Your task to perform on an android device: Open Google Chrome and open the bookmarks view Image 0: 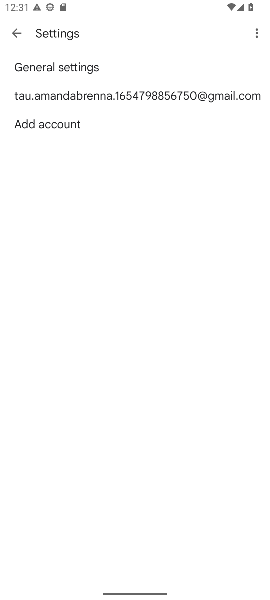
Step 0: press home button
Your task to perform on an android device: Open Google Chrome and open the bookmarks view Image 1: 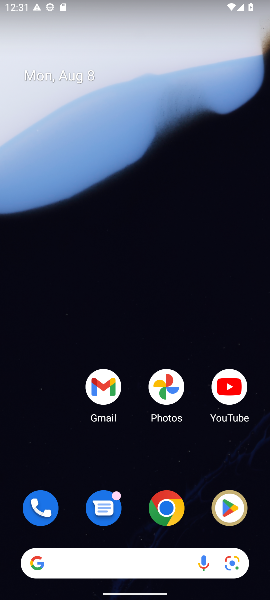
Step 1: click (164, 510)
Your task to perform on an android device: Open Google Chrome and open the bookmarks view Image 2: 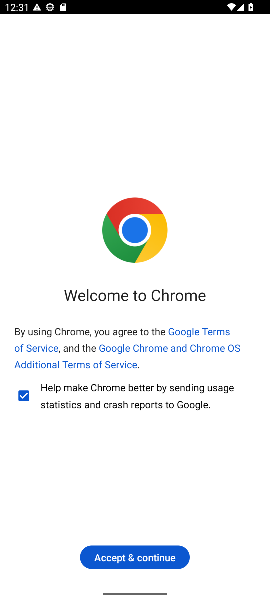
Step 2: click (119, 565)
Your task to perform on an android device: Open Google Chrome and open the bookmarks view Image 3: 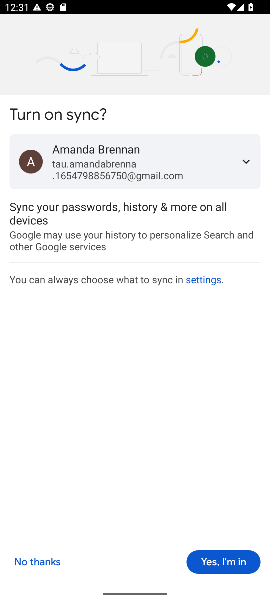
Step 3: click (209, 558)
Your task to perform on an android device: Open Google Chrome and open the bookmarks view Image 4: 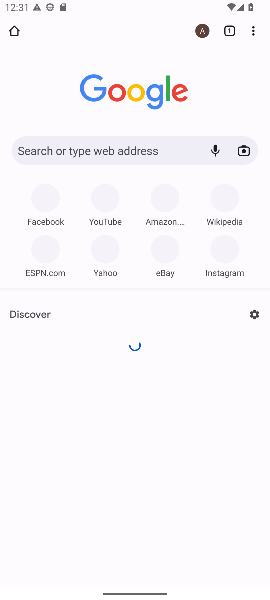
Step 4: click (252, 33)
Your task to perform on an android device: Open Google Chrome and open the bookmarks view Image 5: 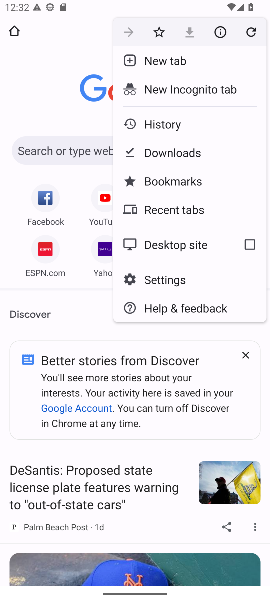
Step 5: click (168, 181)
Your task to perform on an android device: Open Google Chrome and open the bookmarks view Image 6: 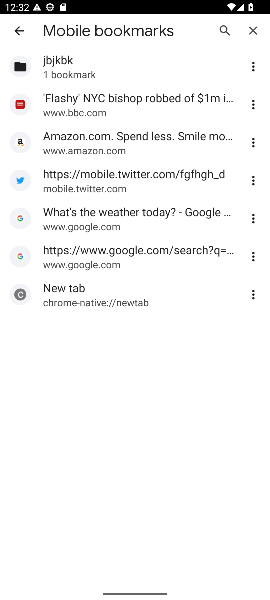
Step 6: task complete